Your task to perform on an android device: allow cookies in the chrome app Image 0: 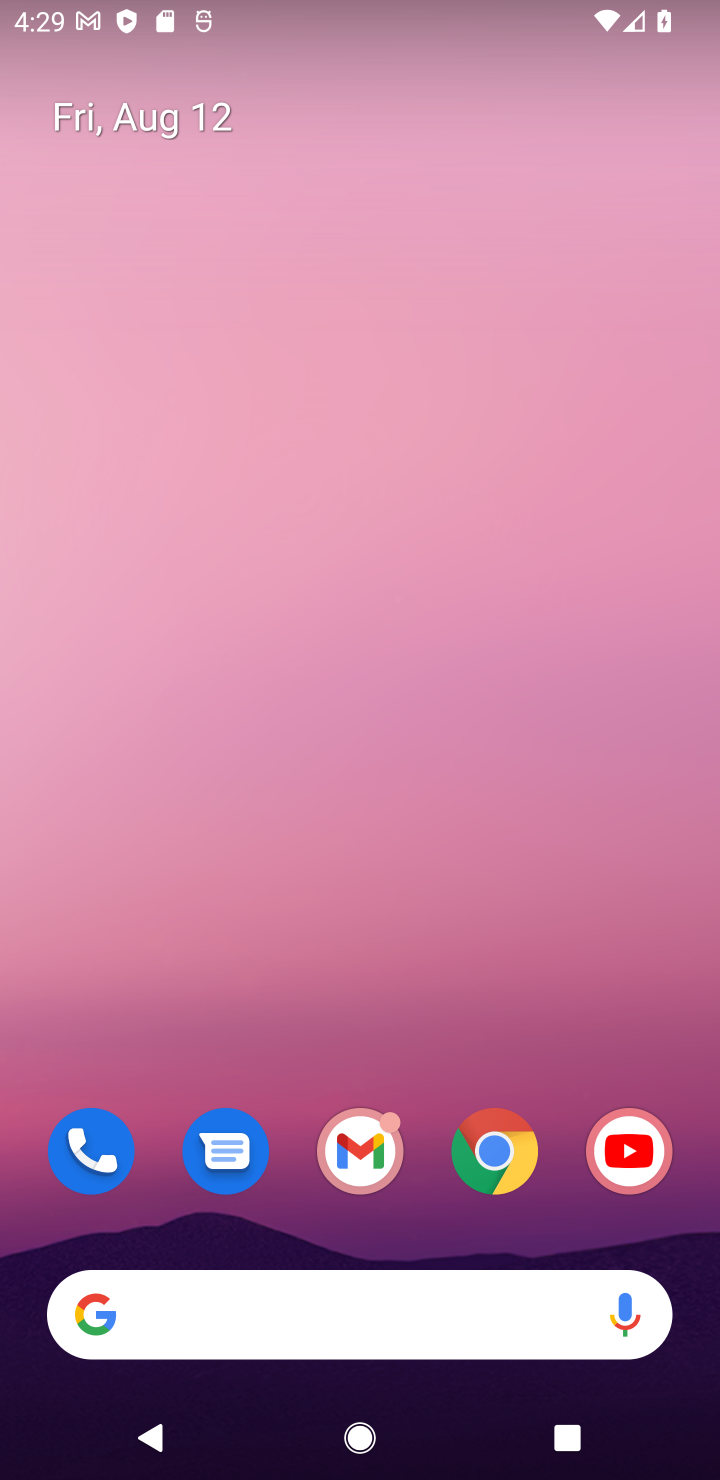
Step 0: drag from (456, 1038) to (479, 97)
Your task to perform on an android device: allow cookies in the chrome app Image 1: 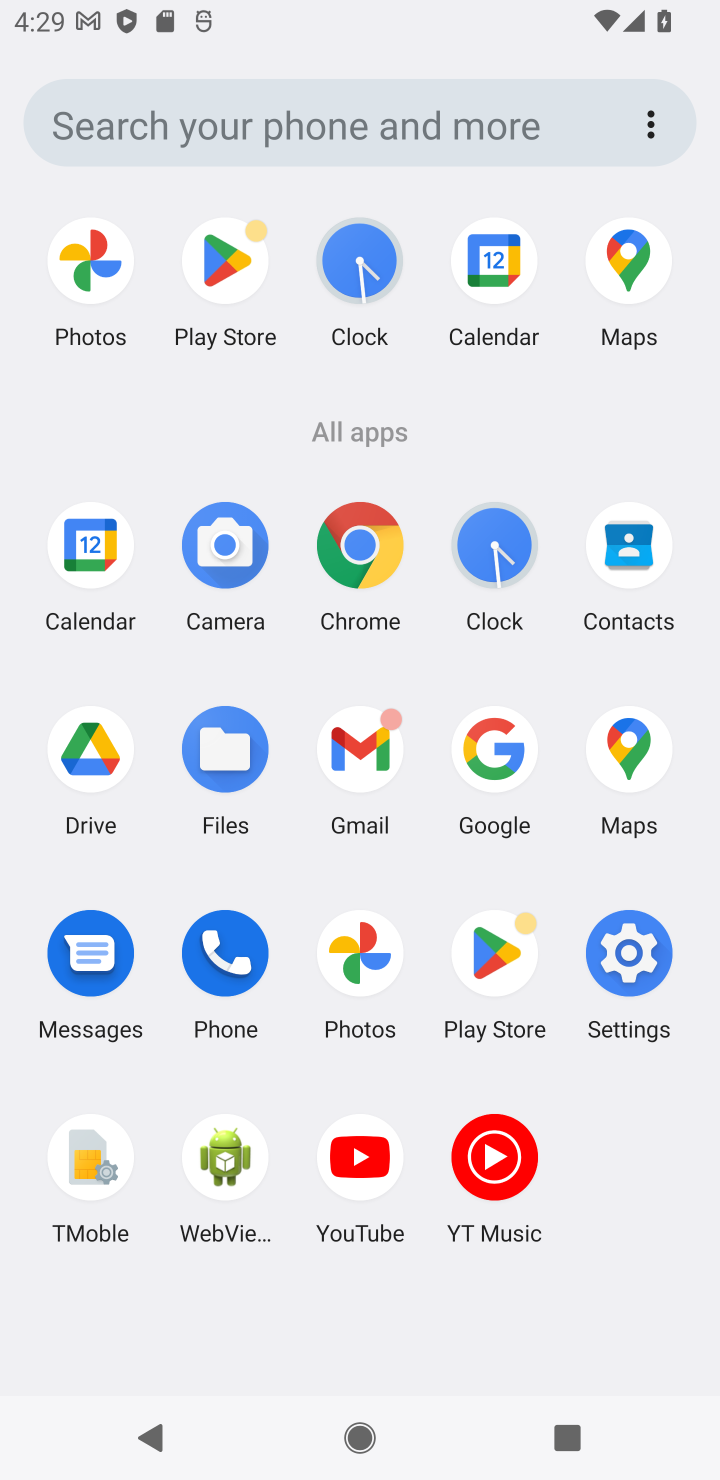
Step 1: click (353, 538)
Your task to perform on an android device: allow cookies in the chrome app Image 2: 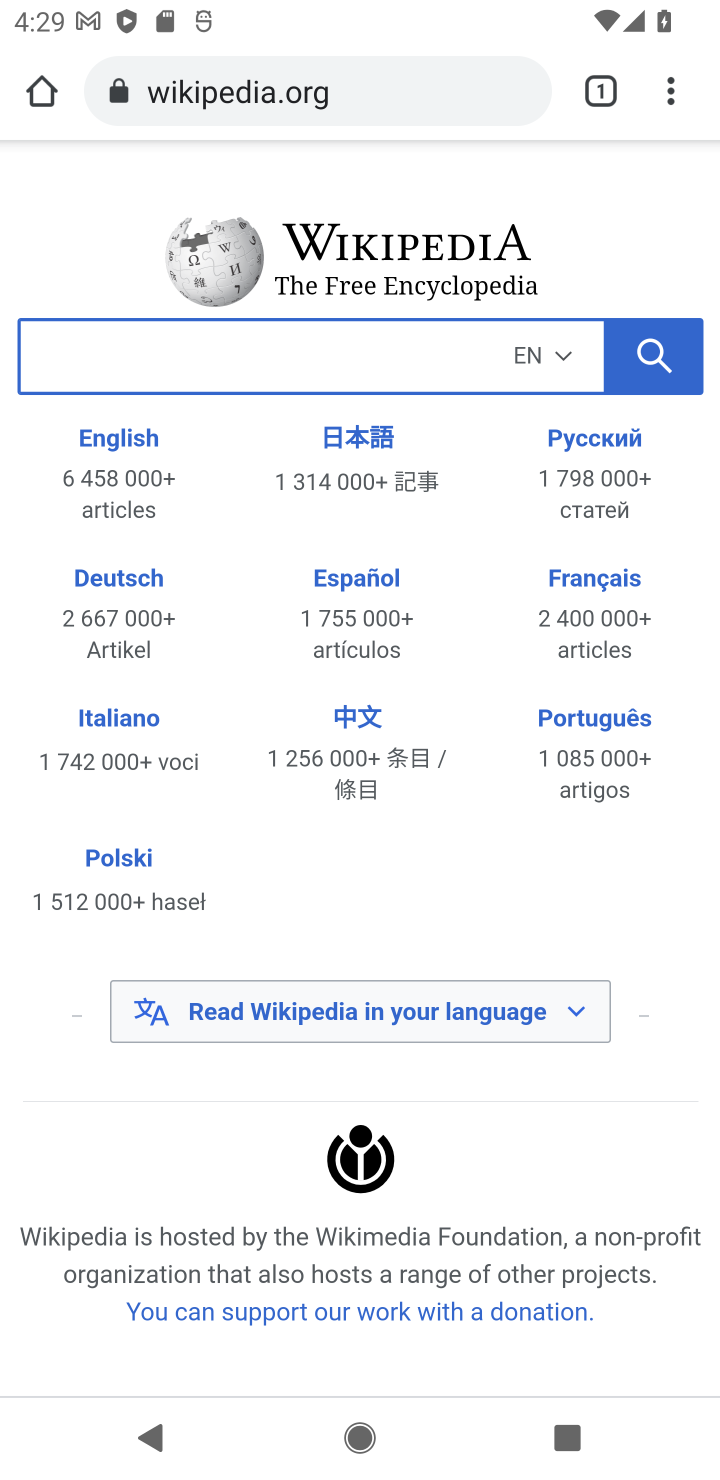
Step 2: drag from (687, 77) to (394, 1135)
Your task to perform on an android device: allow cookies in the chrome app Image 3: 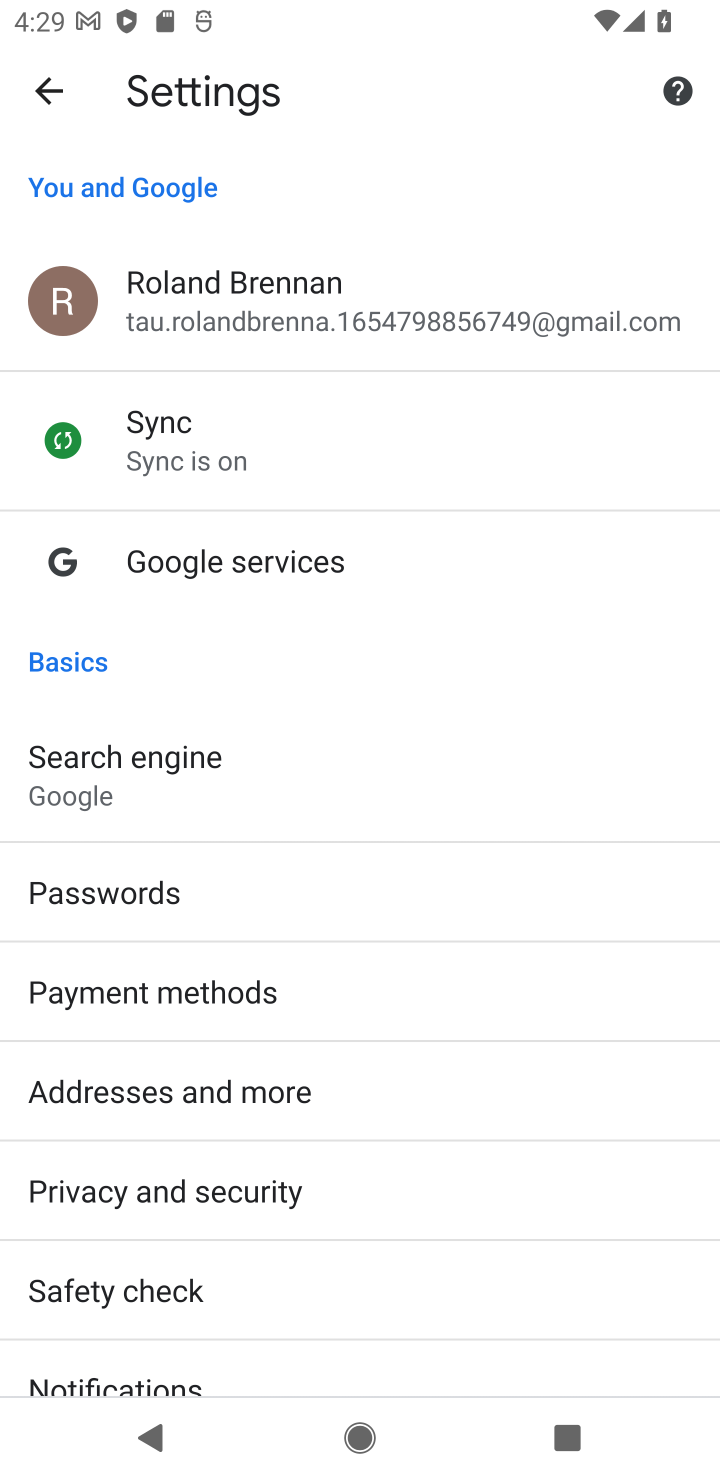
Step 3: drag from (478, 1284) to (462, 556)
Your task to perform on an android device: allow cookies in the chrome app Image 4: 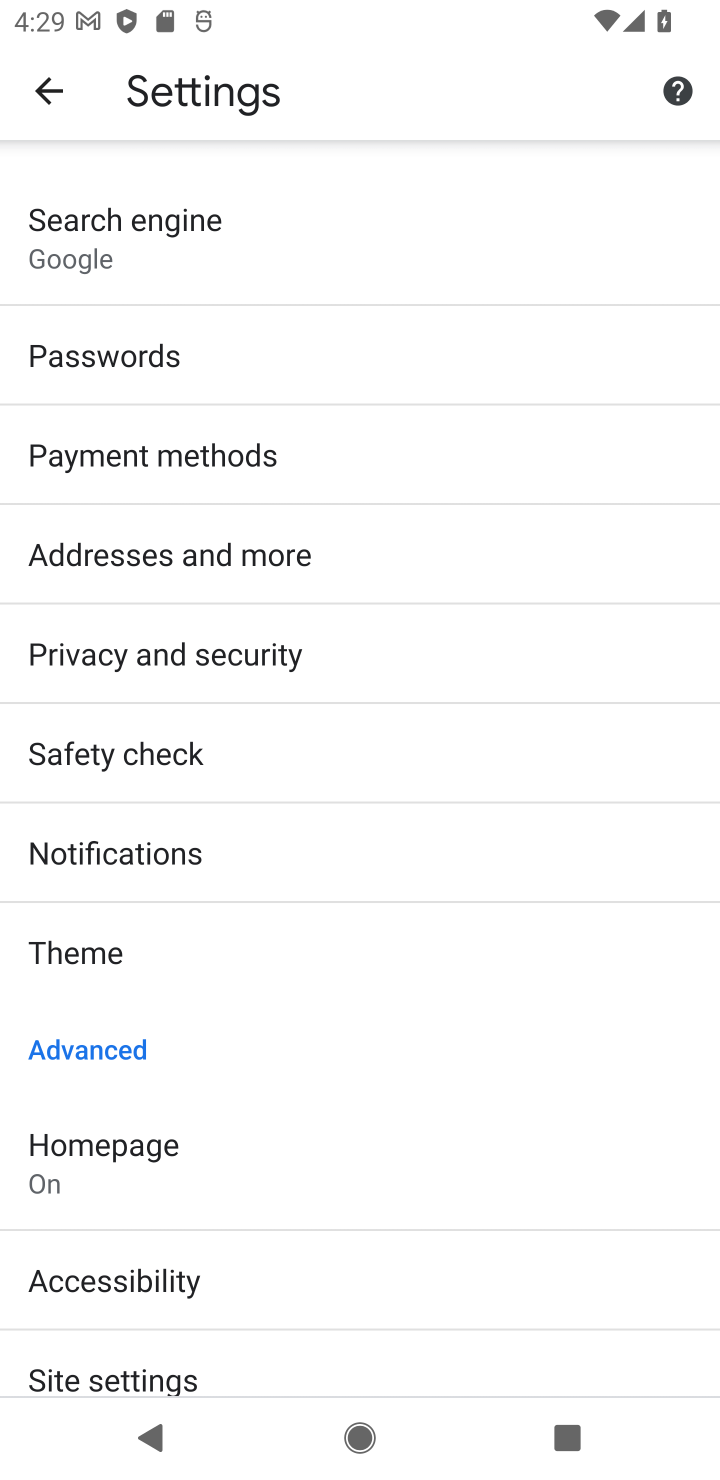
Step 4: click (177, 1376)
Your task to perform on an android device: allow cookies in the chrome app Image 5: 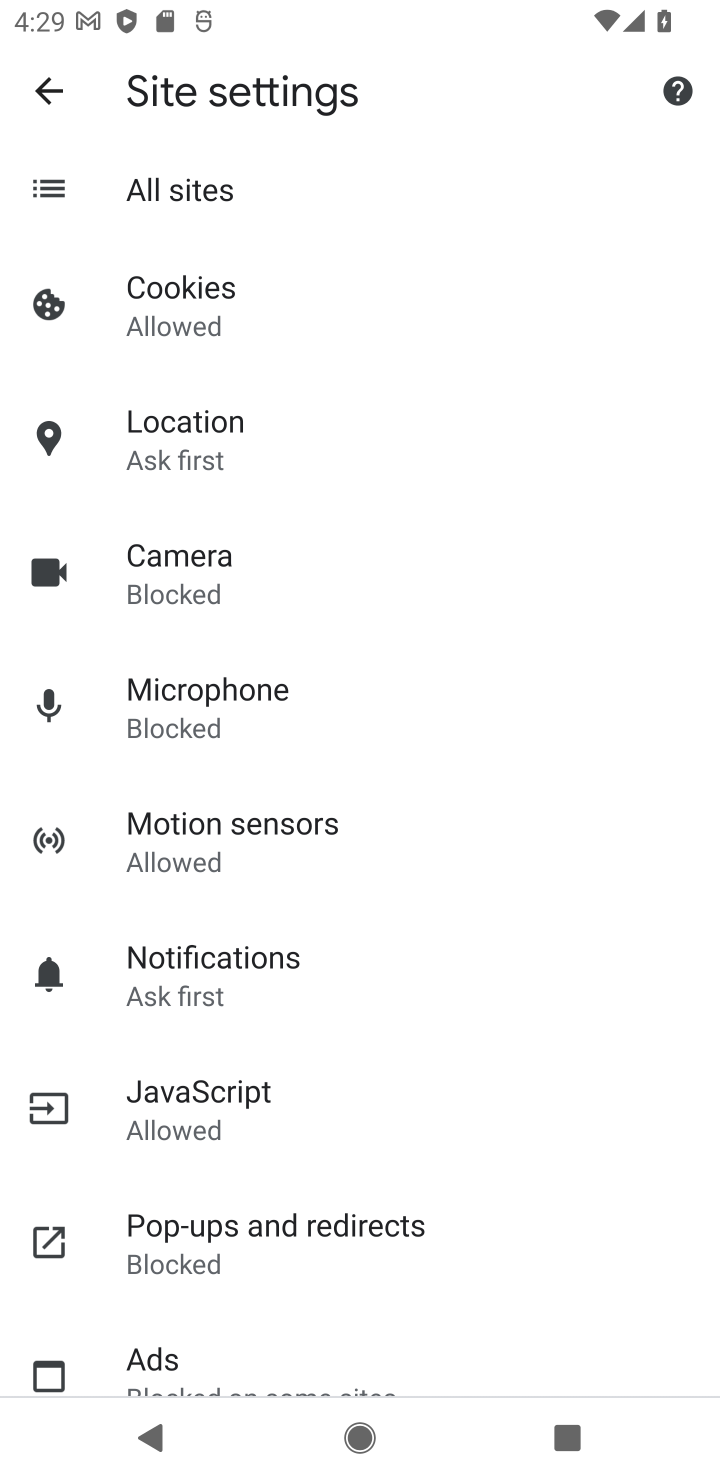
Step 5: click (185, 299)
Your task to perform on an android device: allow cookies in the chrome app Image 6: 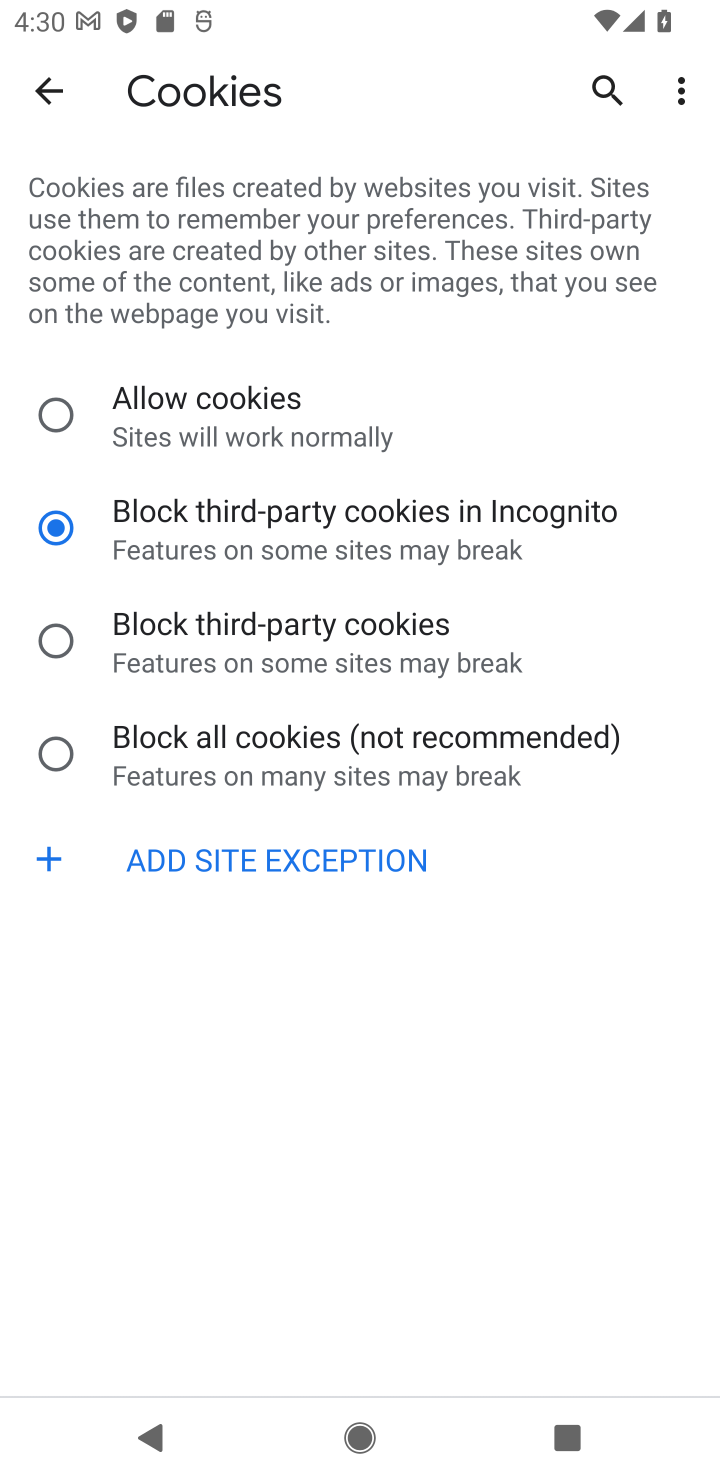
Step 6: click (232, 400)
Your task to perform on an android device: allow cookies in the chrome app Image 7: 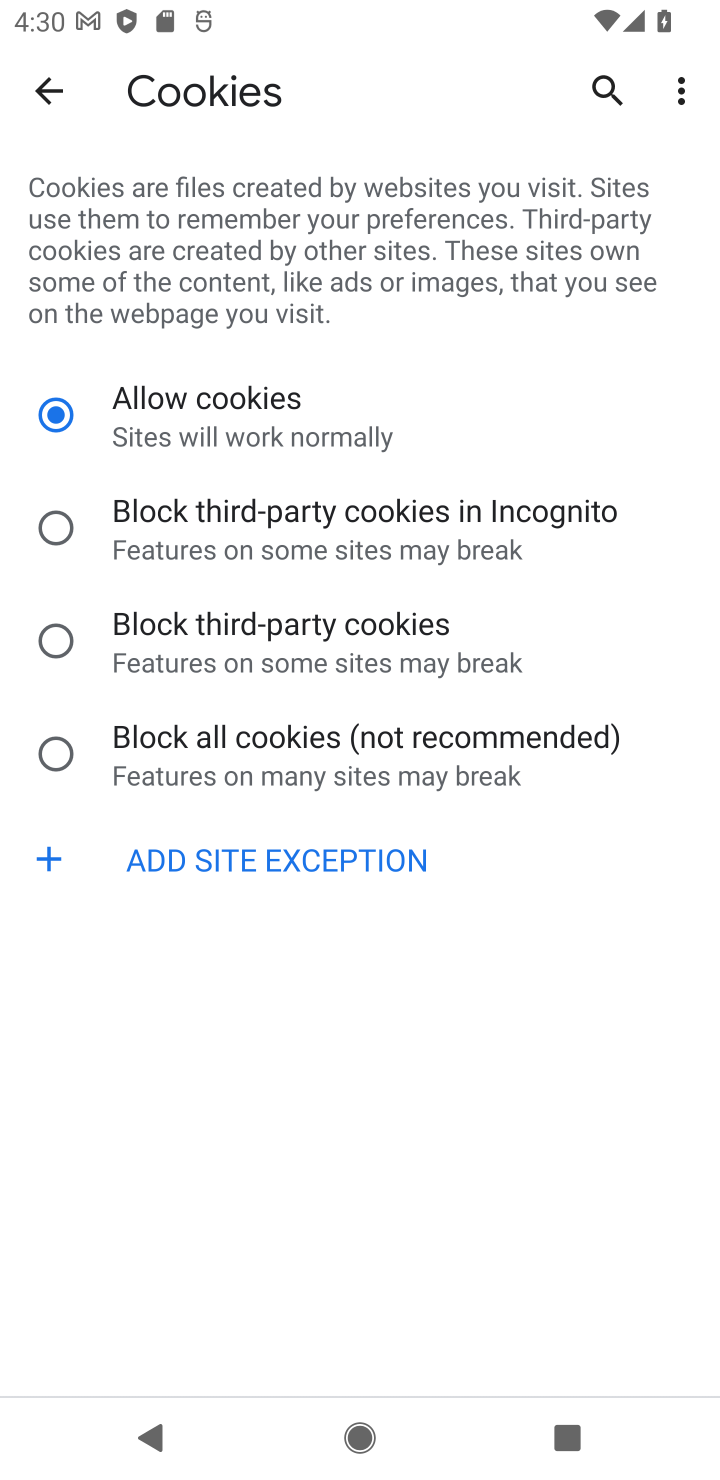
Step 7: task complete